Your task to perform on an android device: change notifications settings Image 0: 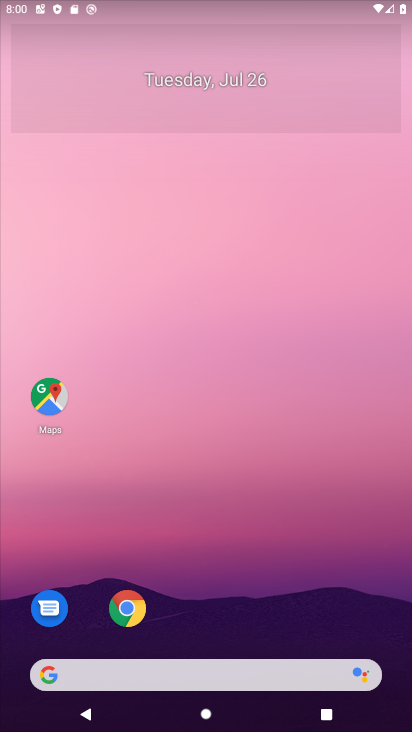
Step 0: drag from (43, 691) to (261, 0)
Your task to perform on an android device: change notifications settings Image 1: 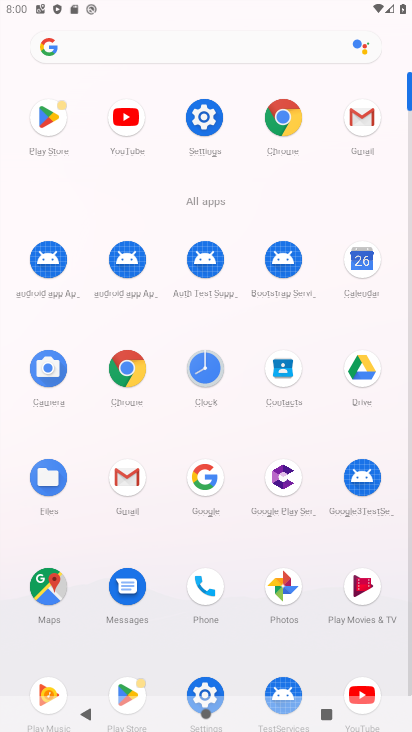
Step 1: click (198, 696)
Your task to perform on an android device: change notifications settings Image 2: 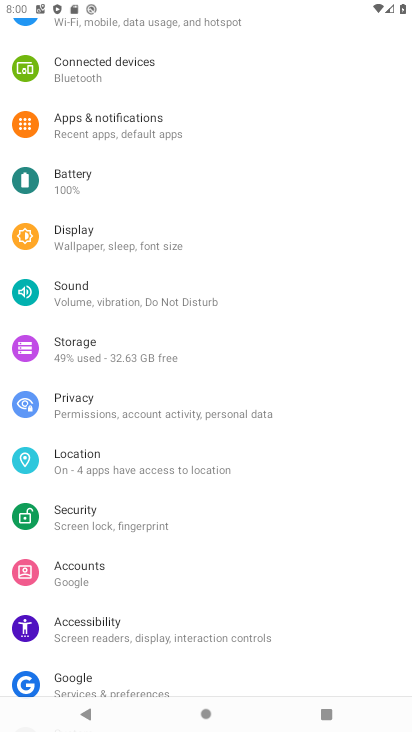
Step 2: click (69, 124)
Your task to perform on an android device: change notifications settings Image 3: 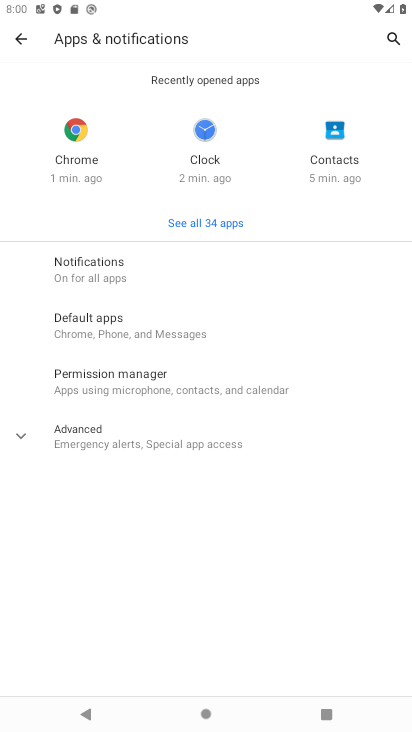
Step 3: task complete